Your task to perform on an android device: Go to Amazon Image 0: 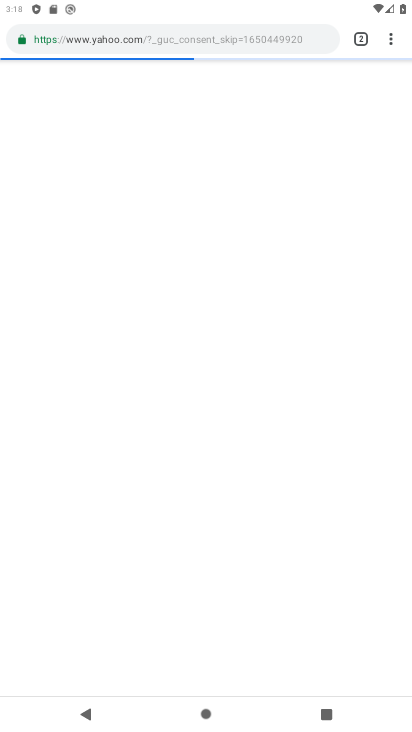
Step 0: press home button
Your task to perform on an android device: Go to Amazon Image 1: 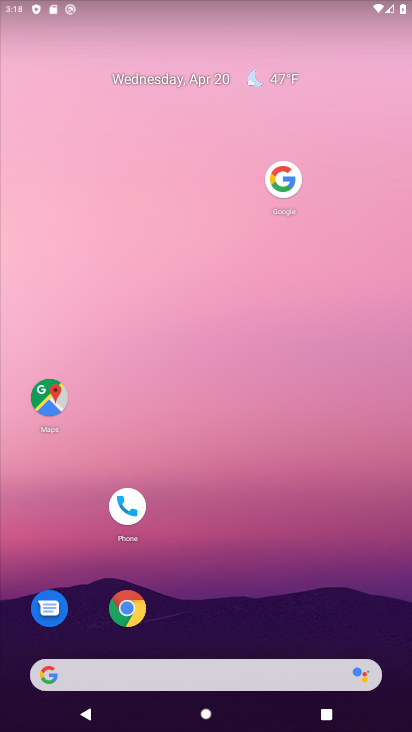
Step 1: click (119, 609)
Your task to perform on an android device: Go to Amazon Image 2: 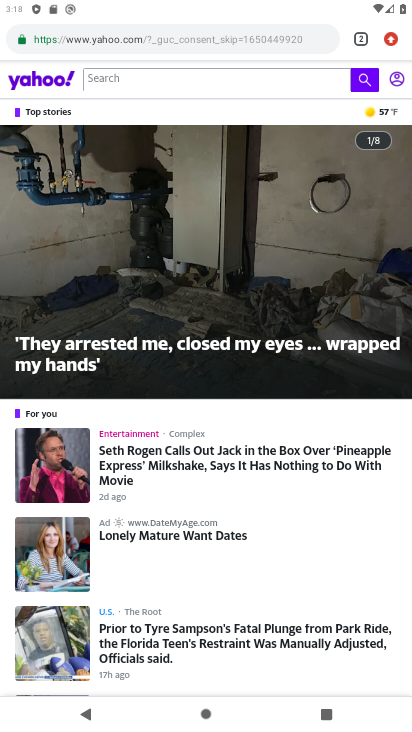
Step 2: click (172, 28)
Your task to perform on an android device: Go to Amazon Image 3: 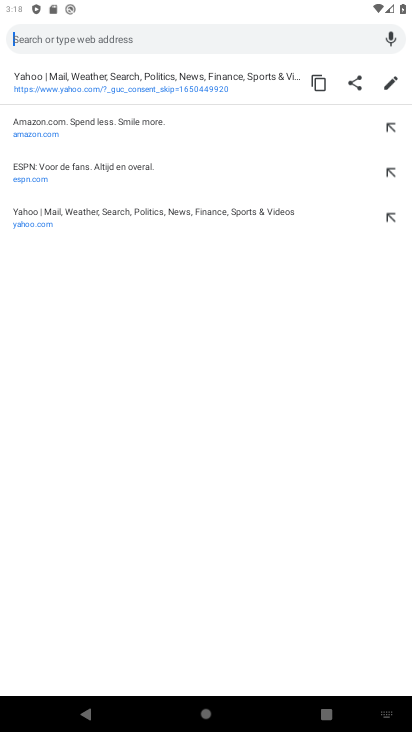
Step 3: click (126, 128)
Your task to perform on an android device: Go to Amazon Image 4: 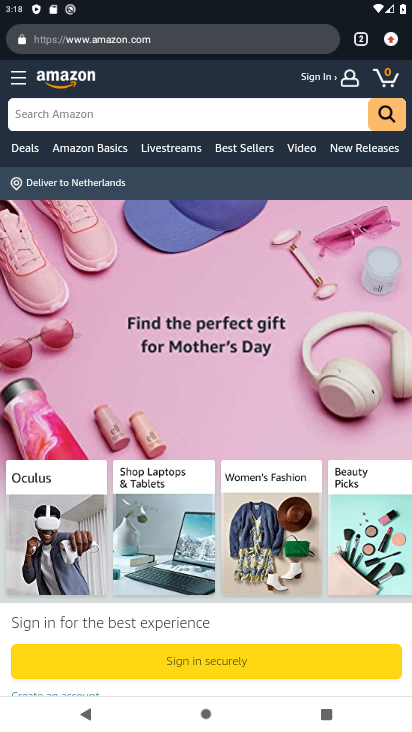
Step 4: task complete